Your task to perform on an android device: Empty the shopping cart on costco. Add "alienware aurora" to the cart on costco, then select checkout. Image 0: 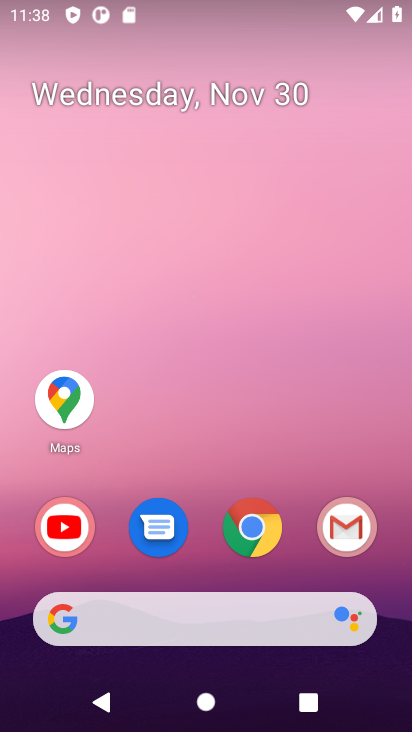
Step 0: click (259, 531)
Your task to perform on an android device: Empty the shopping cart on costco. Add "alienware aurora" to the cart on costco, then select checkout. Image 1: 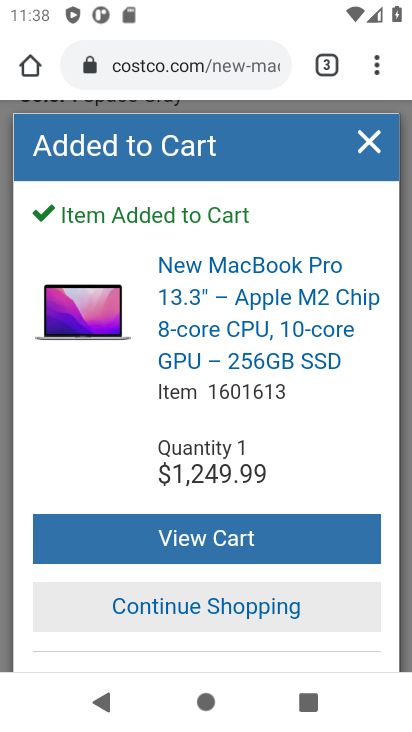
Step 1: click (194, 532)
Your task to perform on an android device: Empty the shopping cart on costco. Add "alienware aurora" to the cart on costco, then select checkout. Image 2: 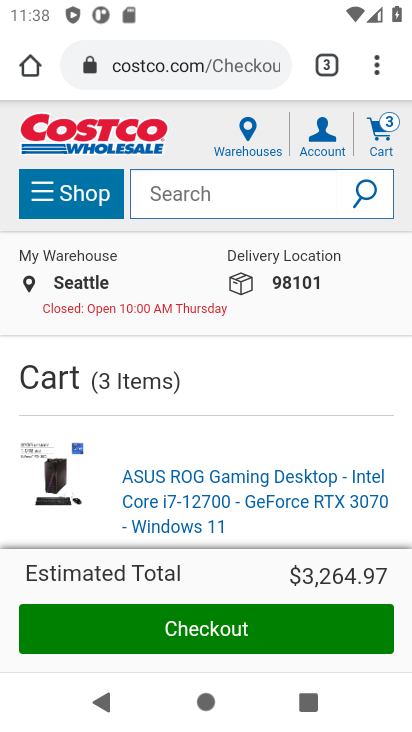
Step 2: drag from (186, 490) to (169, 274)
Your task to perform on an android device: Empty the shopping cart on costco. Add "alienware aurora" to the cart on costco, then select checkout. Image 3: 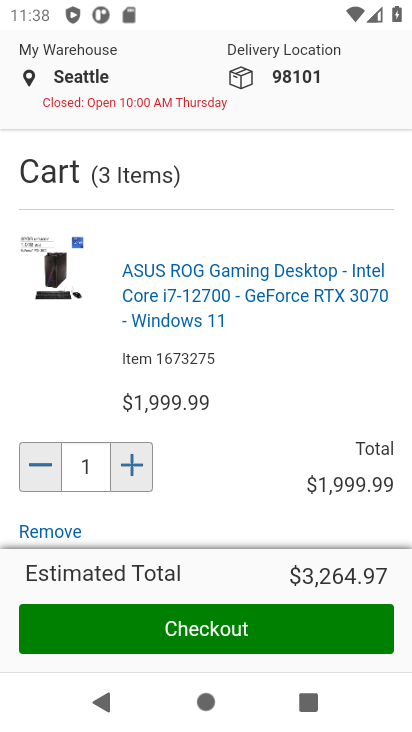
Step 3: drag from (203, 461) to (186, 292)
Your task to perform on an android device: Empty the shopping cart on costco. Add "alienware aurora" to the cart on costco, then select checkout. Image 4: 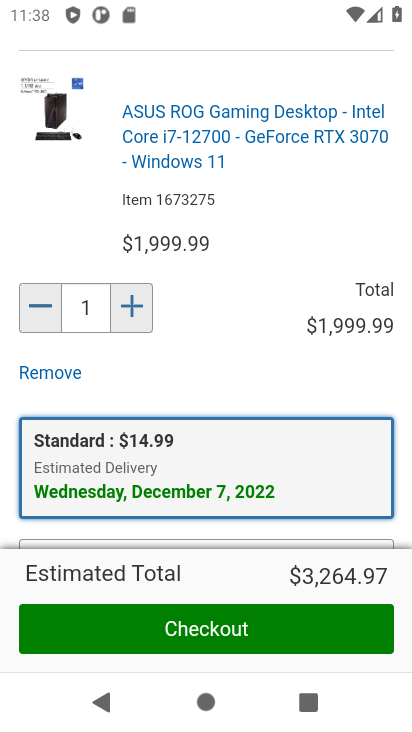
Step 4: drag from (198, 452) to (178, 218)
Your task to perform on an android device: Empty the shopping cart on costco. Add "alienware aurora" to the cart on costco, then select checkout. Image 5: 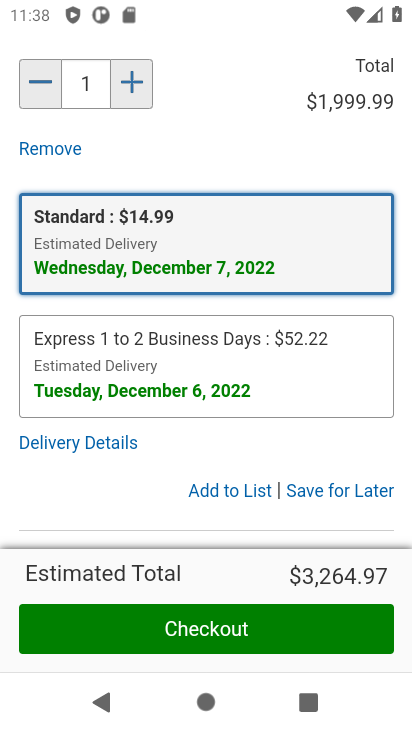
Step 5: drag from (202, 411) to (208, 231)
Your task to perform on an android device: Empty the shopping cart on costco. Add "alienware aurora" to the cart on costco, then select checkout. Image 6: 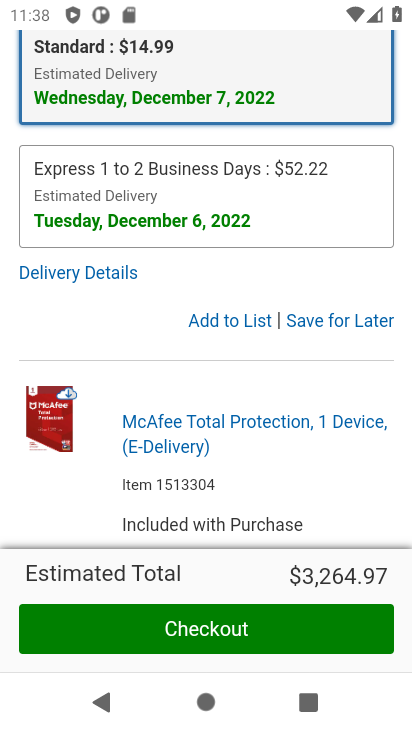
Step 6: click (341, 323)
Your task to perform on an android device: Empty the shopping cart on costco. Add "alienware aurora" to the cart on costco, then select checkout. Image 7: 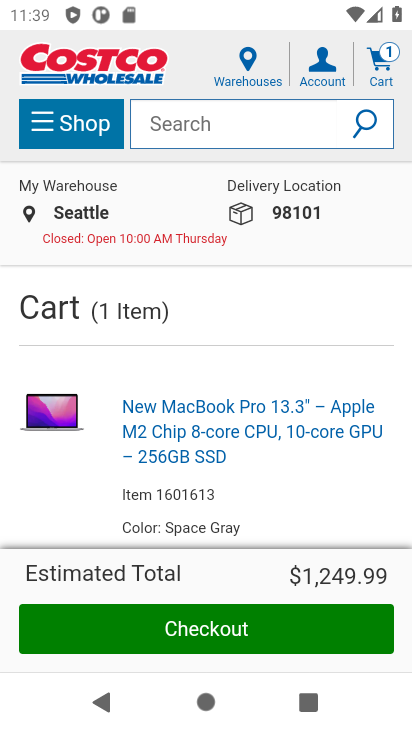
Step 7: drag from (298, 435) to (278, 297)
Your task to perform on an android device: Empty the shopping cart on costco. Add "alienware aurora" to the cart on costco, then select checkout. Image 8: 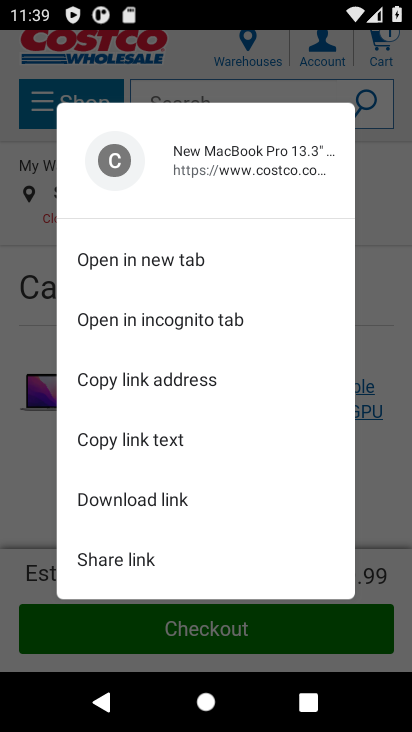
Step 8: drag from (367, 472) to (367, 264)
Your task to perform on an android device: Empty the shopping cart on costco. Add "alienware aurora" to the cart on costco, then select checkout. Image 9: 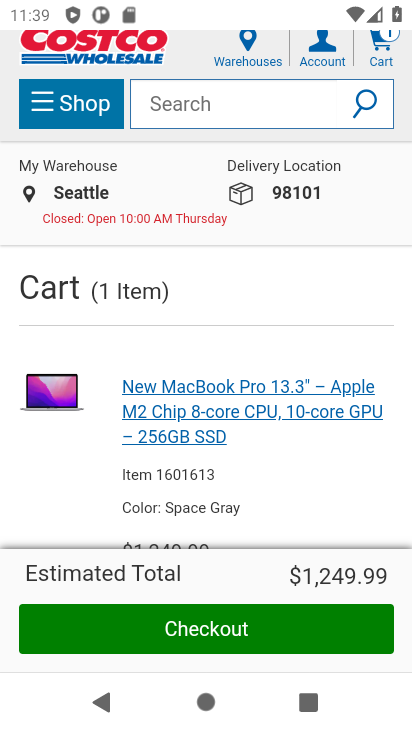
Step 9: drag from (366, 417) to (359, 231)
Your task to perform on an android device: Empty the shopping cart on costco. Add "alienware aurora" to the cart on costco, then select checkout. Image 10: 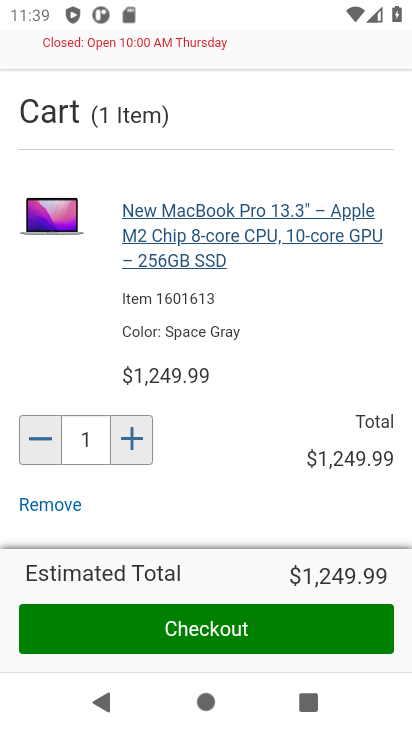
Step 10: drag from (295, 442) to (285, 251)
Your task to perform on an android device: Empty the shopping cart on costco. Add "alienware aurora" to the cart on costco, then select checkout. Image 11: 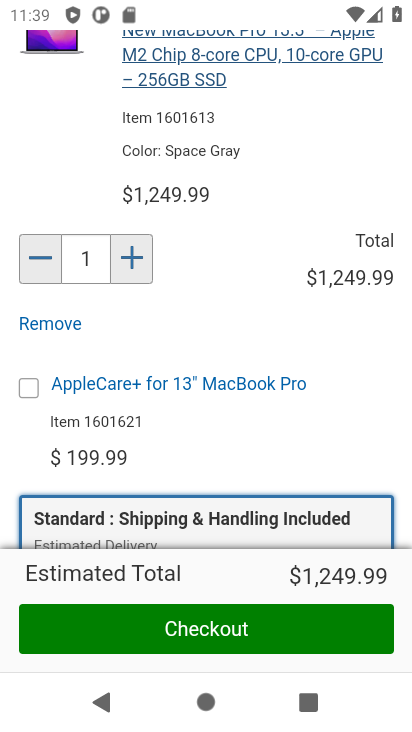
Step 11: drag from (304, 424) to (292, 218)
Your task to perform on an android device: Empty the shopping cart on costco. Add "alienware aurora" to the cart on costco, then select checkout. Image 12: 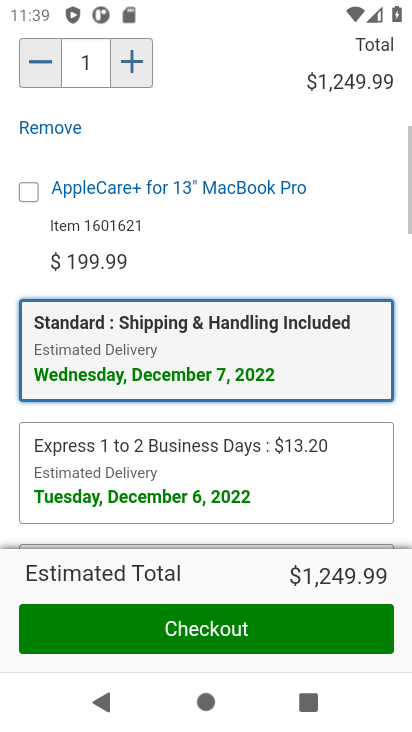
Step 12: drag from (319, 447) to (322, 243)
Your task to perform on an android device: Empty the shopping cart on costco. Add "alienware aurora" to the cart on costco, then select checkout. Image 13: 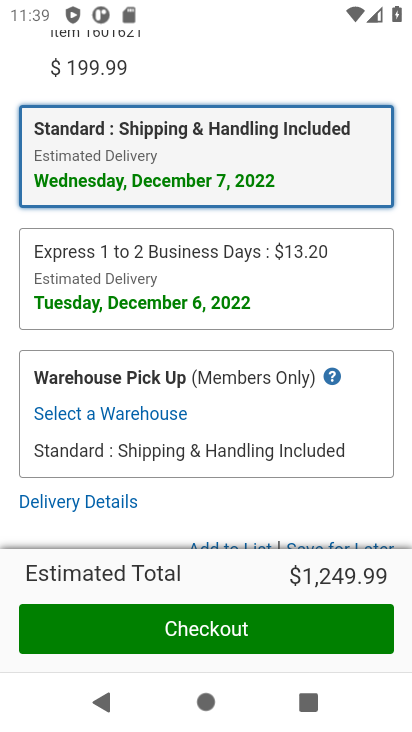
Step 13: drag from (302, 375) to (283, 181)
Your task to perform on an android device: Empty the shopping cart on costco. Add "alienware aurora" to the cart on costco, then select checkout. Image 14: 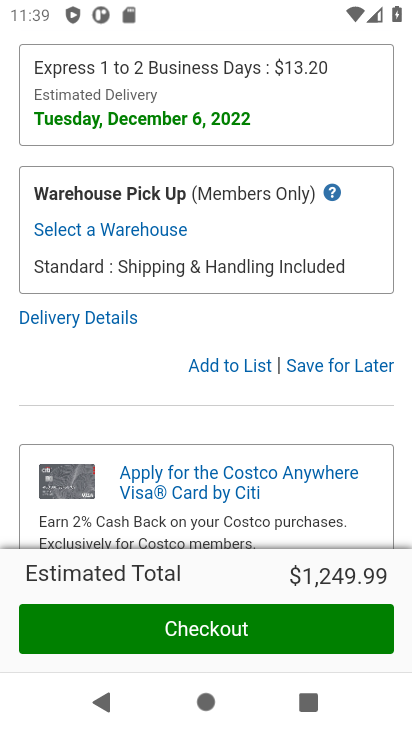
Step 14: click (300, 361)
Your task to perform on an android device: Empty the shopping cart on costco. Add "alienware aurora" to the cart on costco, then select checkout. Image 15: 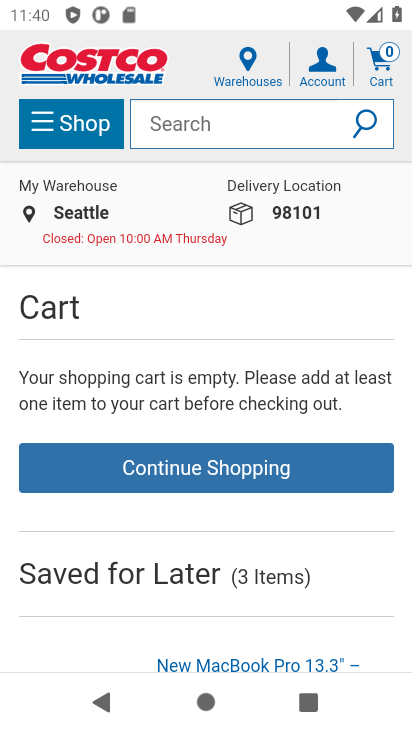
Step 15: click (170, 126)
Your task to perform on an android device: Empty the shopping cart on costco. Add "alienware aurora" to the cart on costco, then select checkout. Image 16: 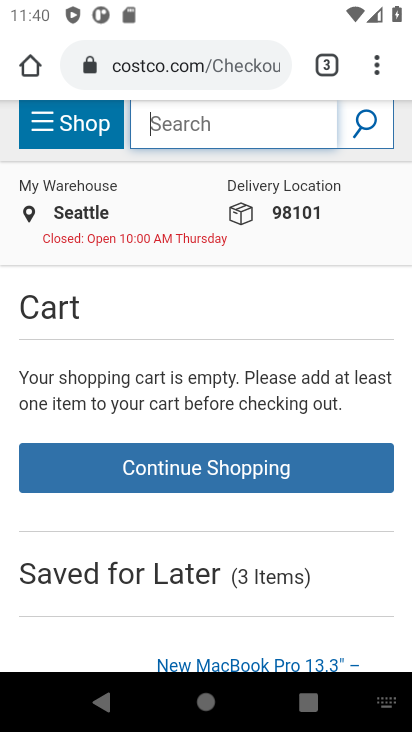
Step 16: type "alienware aurora"
Your task to perform on an android device: Empty the shopping cart on costco. Add "alienware aurora" to the cart on costco, then select checkout. Image 17: 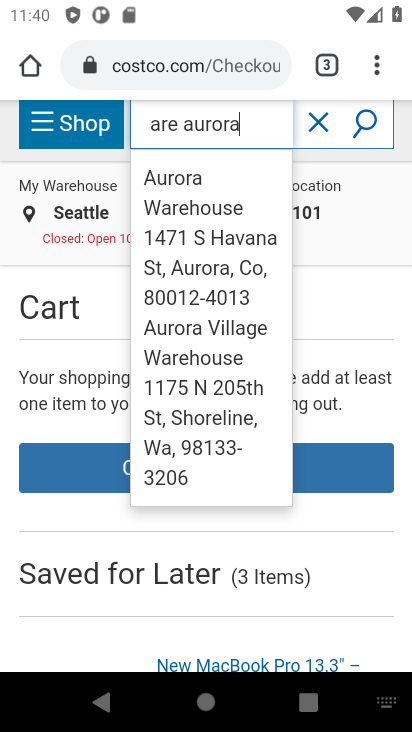
Step 17: click (366, 130)
Your task to perform on an android device: Empty the shopping cart on costco. Add "alienware aurora" to the cart on costco, then select checkout. Image 18: 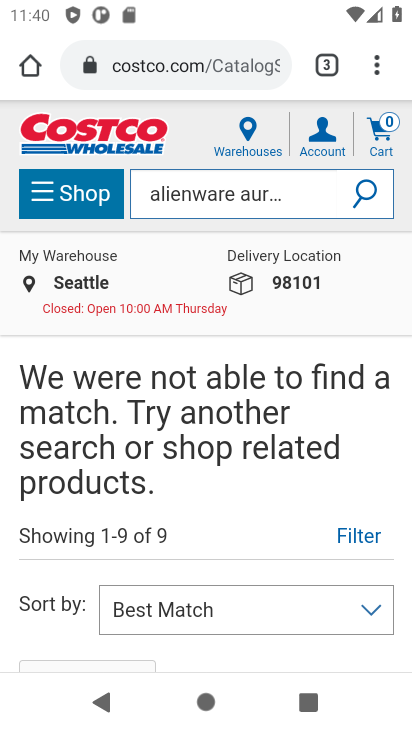
Step 18: task complete